Your task to perform on an android device: Search for Italian restaurants on Maps Image 0: 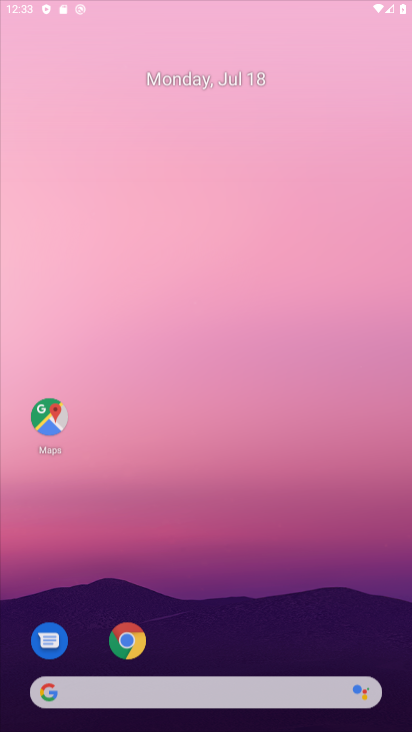
Step 0: press home button
Your task to perform on an android device: Search for Italian restaurants on Maps Image 1: 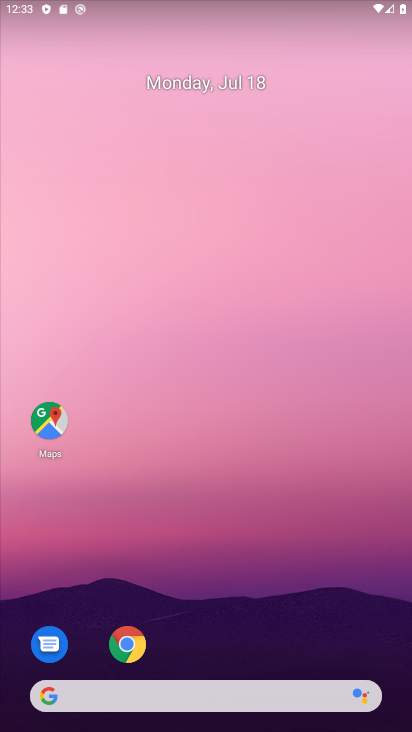
Step 1: click (52, 419)
Your task to perform on an android device: Search for Italian restaurants on Maps Image 2: 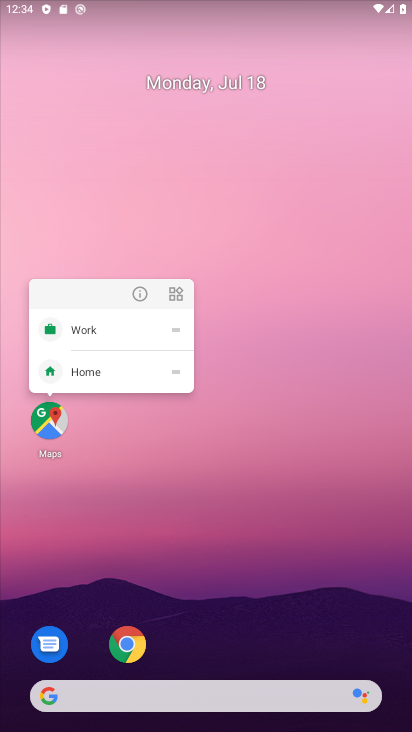
Step 2: click (50, 417)
Your task to perform on an android device: Search for Italian restaurants on Maps Image 3: 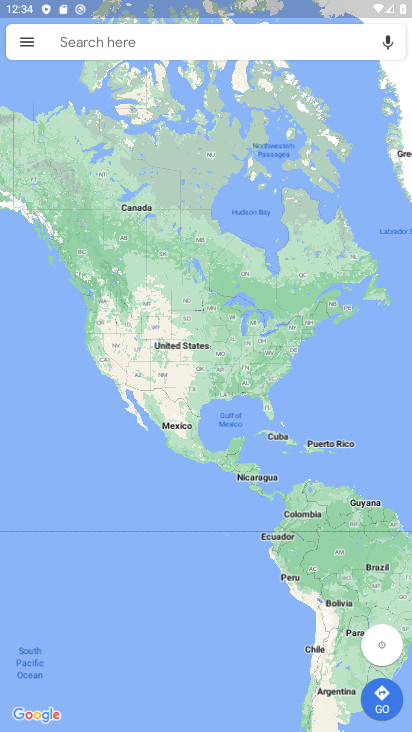
Step 3: click (87, 32)
Your task to perform on an android device: Search for Italian restaurants on Maps Image 4: 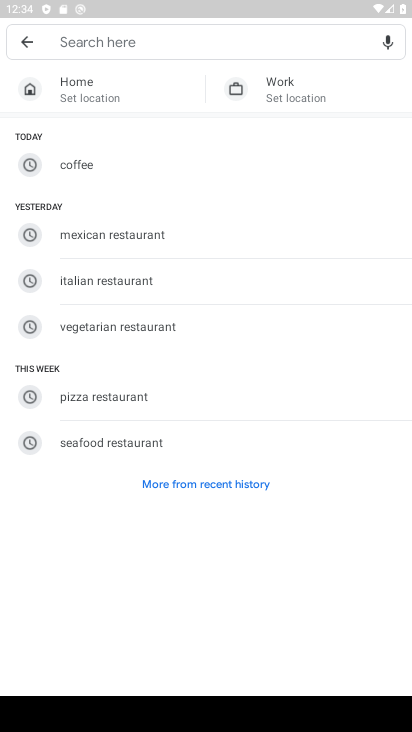
Step 4: click (145, 290)
Your task to perform on an android device: Search for Italian restaurants on Maps Image 5: 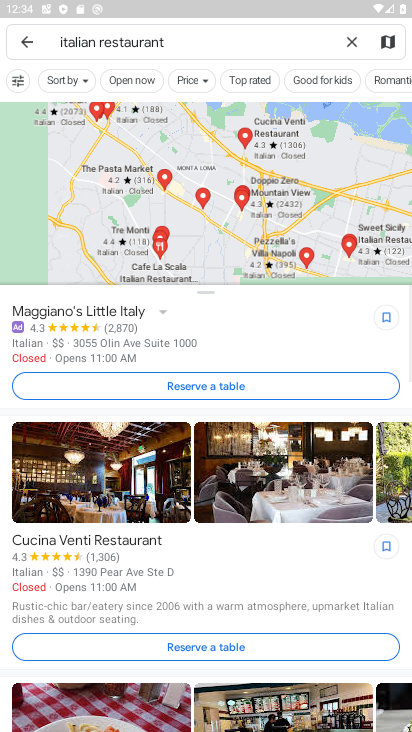
Step 5: task complete